Your task to perform on an android device: toggle airplane mode Image 0: 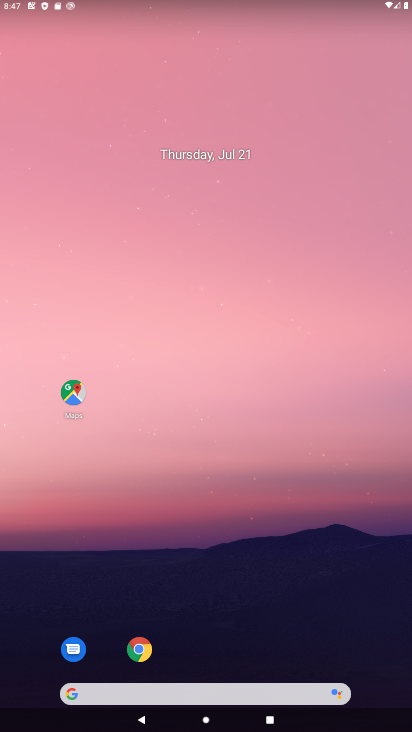
Step 0: drag from (217, 652) to (211, 200)
Your task to perform on an android device: toggle airplane mode Image 1: 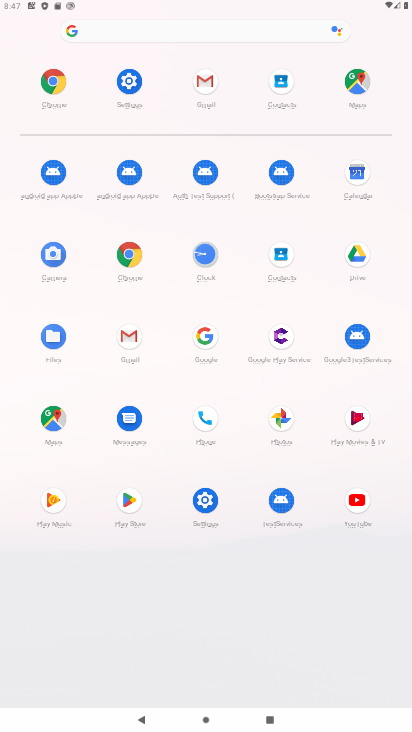
Step 1: click (134, 98)
Your task to perform on an android device: toggle airplane mode Image 2: 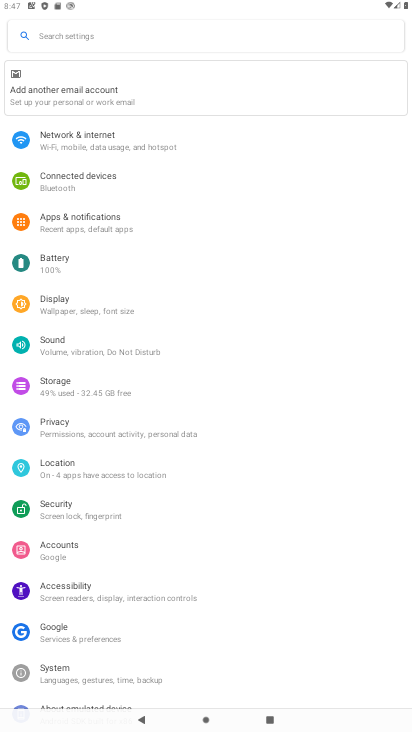
Step 2: click (104, 144)
Your task to perform on an android device: toggle airplane mode Image 3: 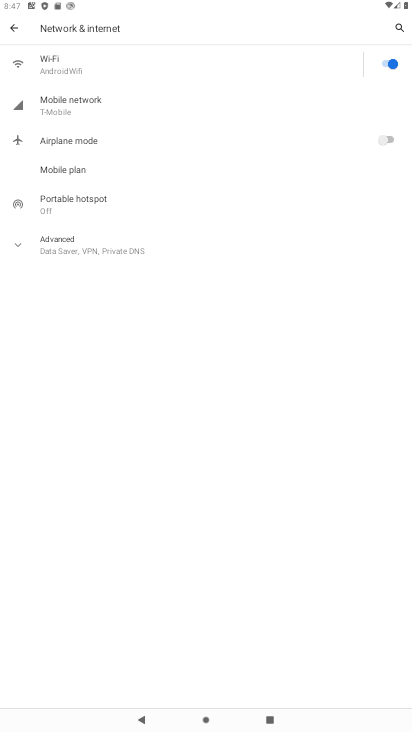
Step 3: click (396, 141)
Your task to perform on an android device: toggle airplane mode Image 4: 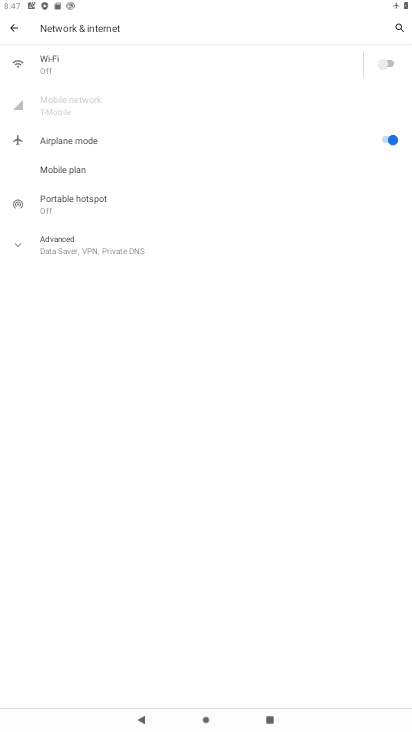
Step 4: task complete